Your task to perform on an android device: Check the weather Image 0: 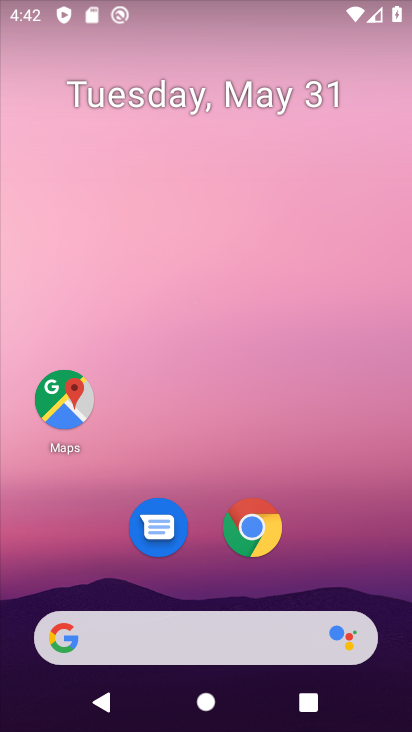
Step 0: drag from (250, 567) to (298, 72)
Your task to perform on an android device: Check the weather Image 1: 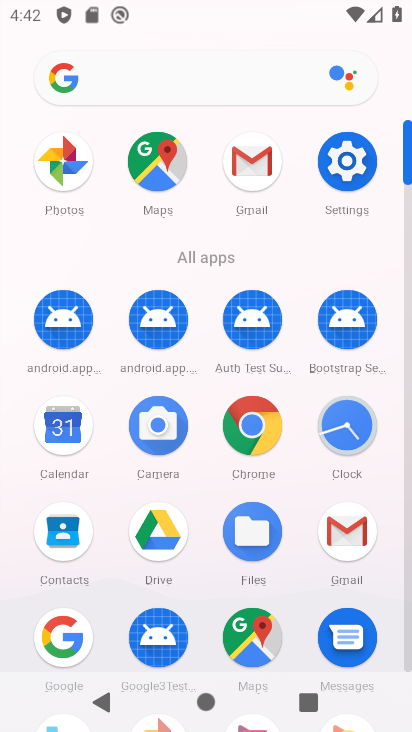
Step 1: click (257, 433)
Your task to perform on an android device: Check the weather Image 2: 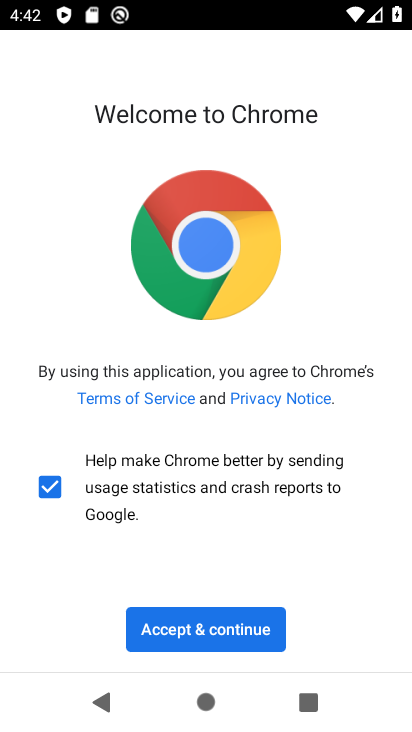
Step 2: click (185, 625)
Your task to perform on an android device: Check the weather Image 3: 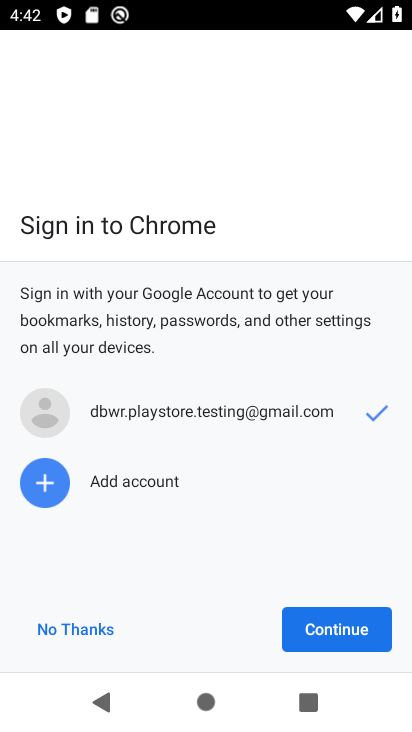
Step 3: click (352, 616)
Your task to perform on an android device: Check the weather Image 4: 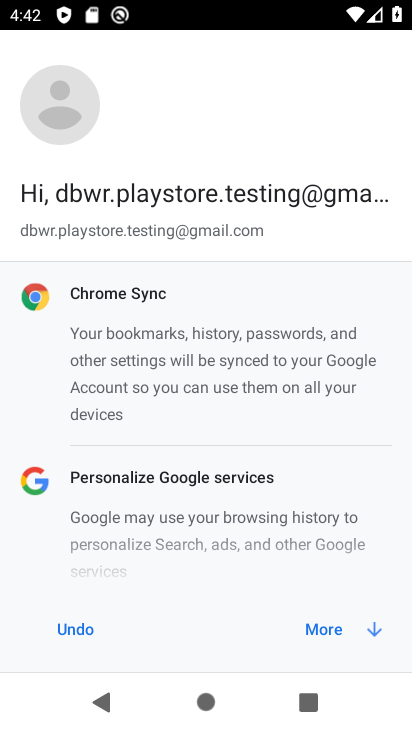
Step 4: click (325, 630)
Your task to perform on an android device: Check the weather Image 5: 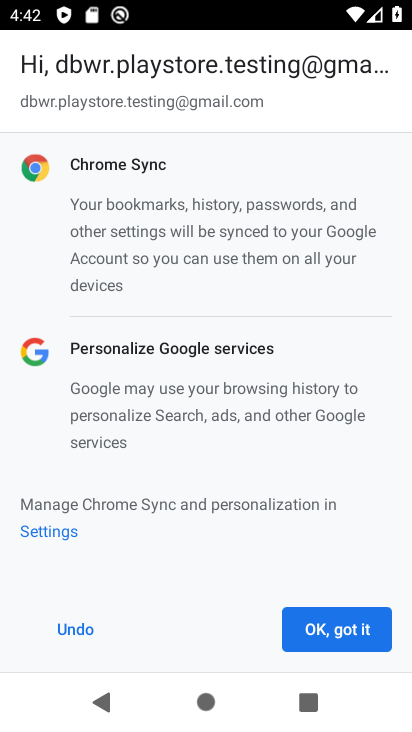
Step 5: click (350, 636)
Your task to perform on an android device: Check the weather Image 6: 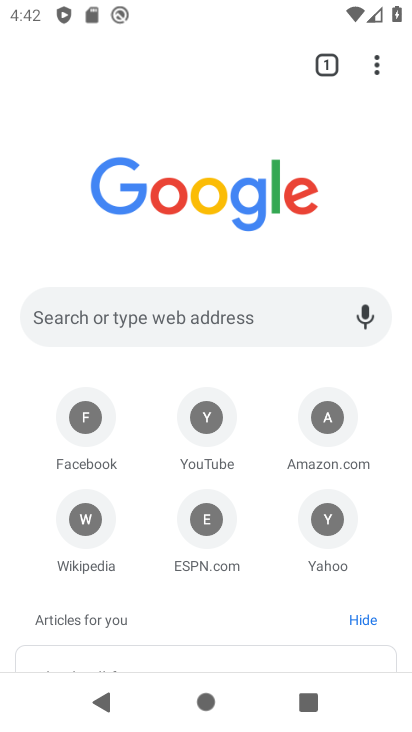
Step 6: click (70, 325)
Your task to perform on an android device: Check the weather Image 7: 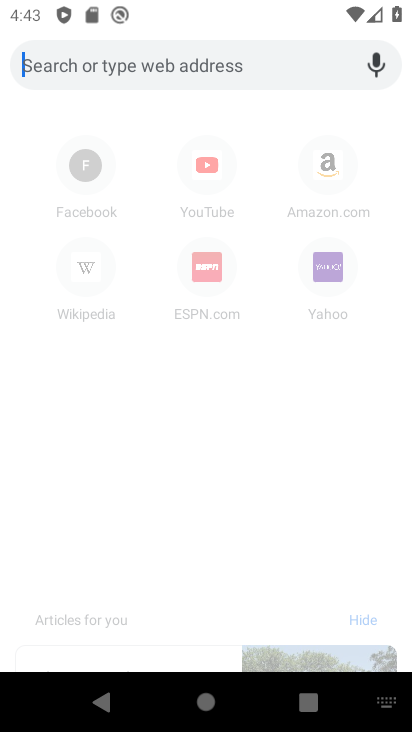
Step 7: type "Check the weather"
Your task to perform on an android device: Check the weather Image 8: 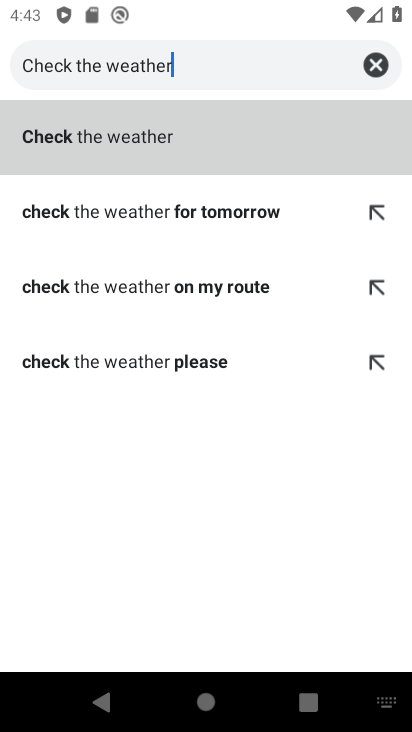
Step 8: click (132, 133)
Your task to perform on an android device: Check the weather Image 9: 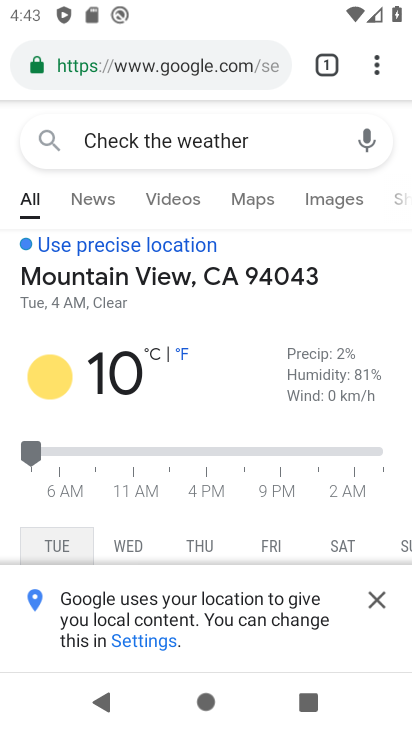
Step 9: task complete